Your task to perform on an android device: Open CNN.com Image 0: 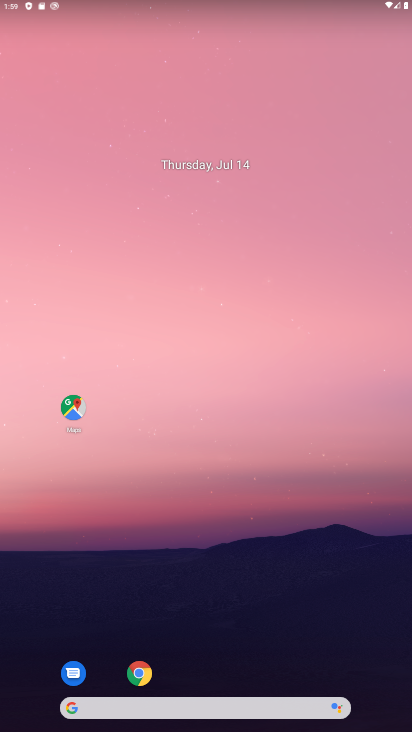
Step 0: click (170, 704)
Your task to perform on an android device: Open CNN.com Image 1: 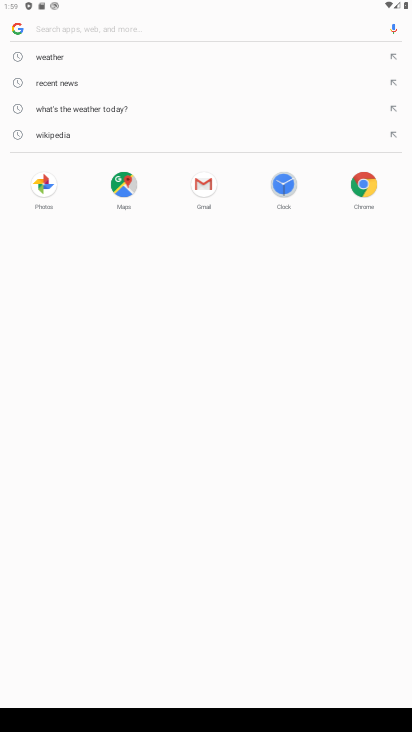
Step 1: type "cnn.com"
Your task to perform on an android device: Open CNN.com Image 2: 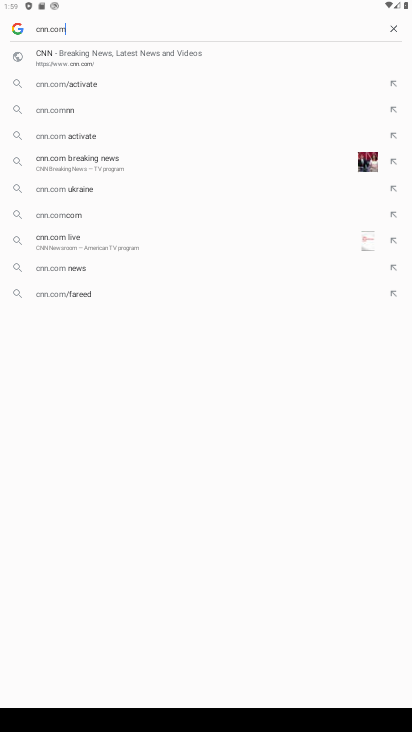
Step 2: click (63, 50)
Your task to perform on an android device: Open CNN.com Image 3: 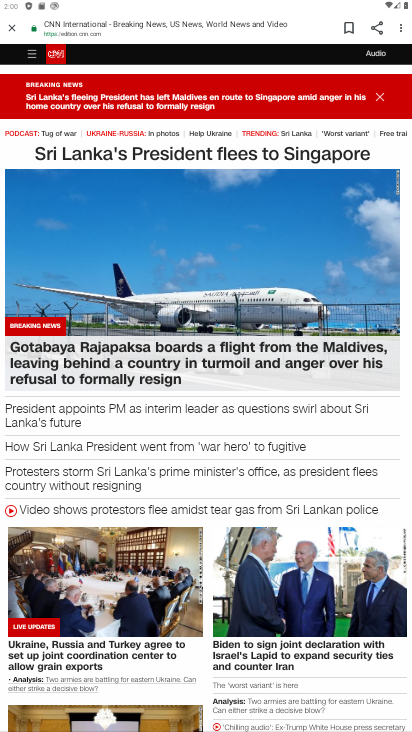
Step 3: task complete